Your task to perform on an android device: Go to Amazon Image 0: 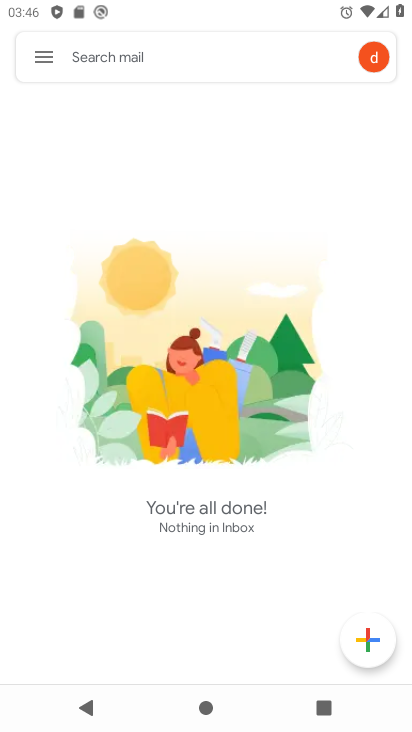
Step 0: press home button
Your task to perform on an android device: Go to Amazon Image 1: 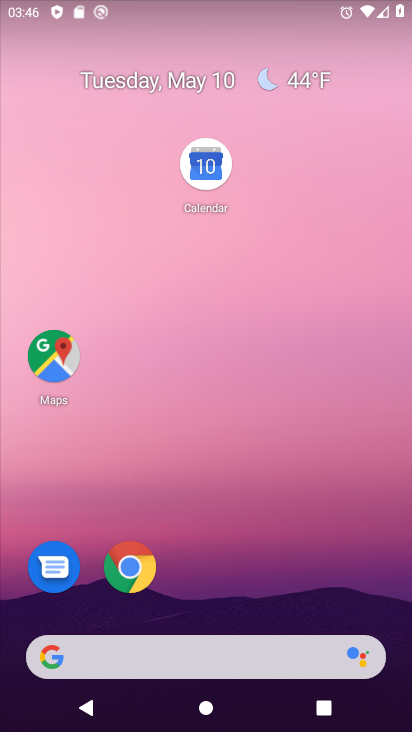
Step 1: click (129, 566)
Your task to perform on an android device: Go to Amazon Image 2: 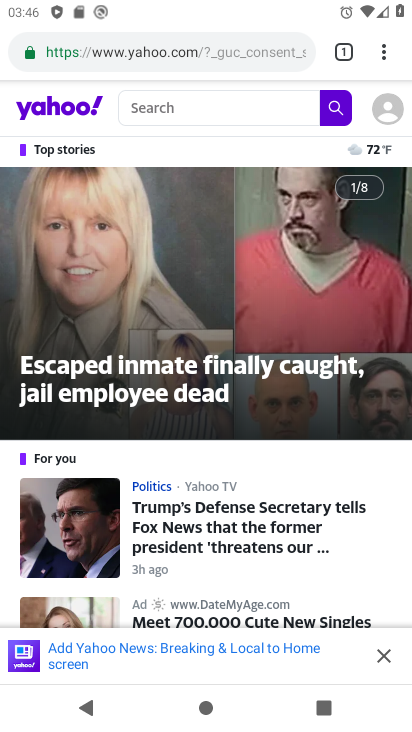
Step 2: press back button
Your task to perform on an android device: Go to Amazon Image 3: 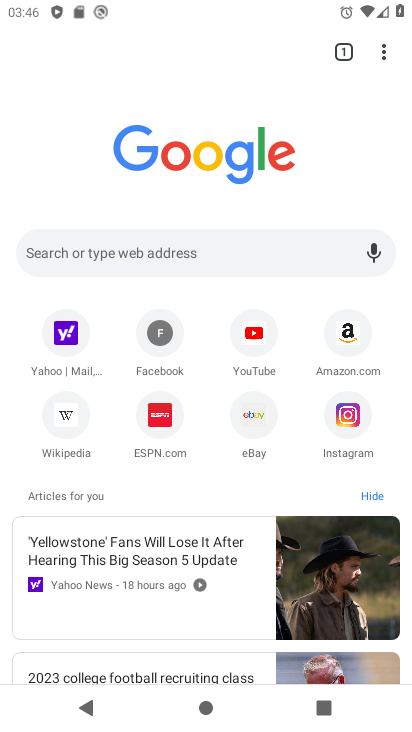
Step 3: click (351, 338)
Your task to perform on an android device: Go to Amazon Image 4: 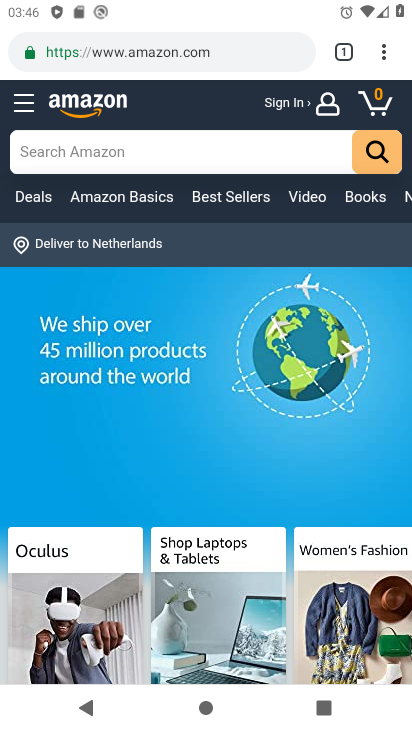
Step 4: task complete